Your task to perform on an android device: open app "Cash App" (install if not already installed) and enter user name: "submodules@gmail.com" and password: "heavenly" Image 0: 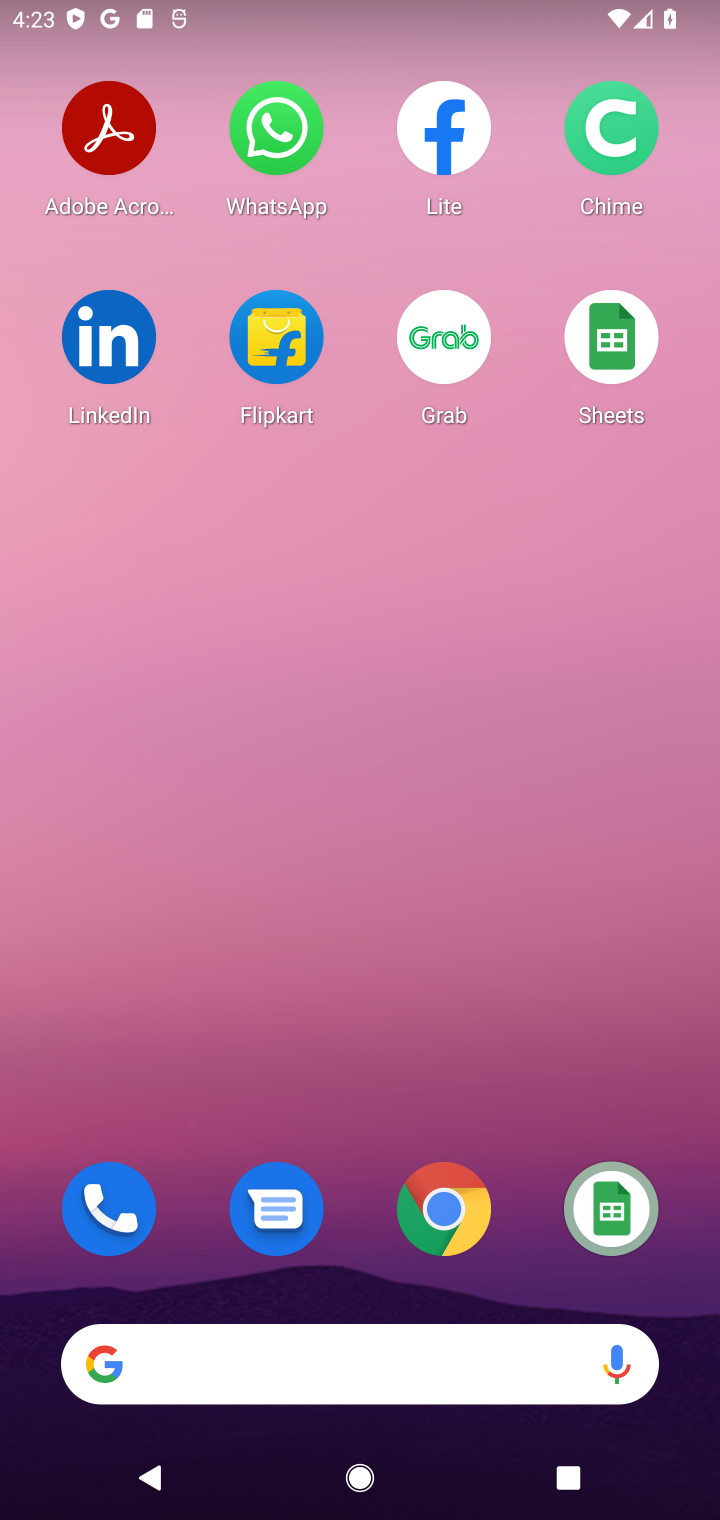
Step 0: drag from (364, 1302) to (412, 95)
Your task to perform on an android device: open app "Cash App" (install if not already installed) and enter user name: "submodules@gmail.com" and password: "heavenly" Image 1: 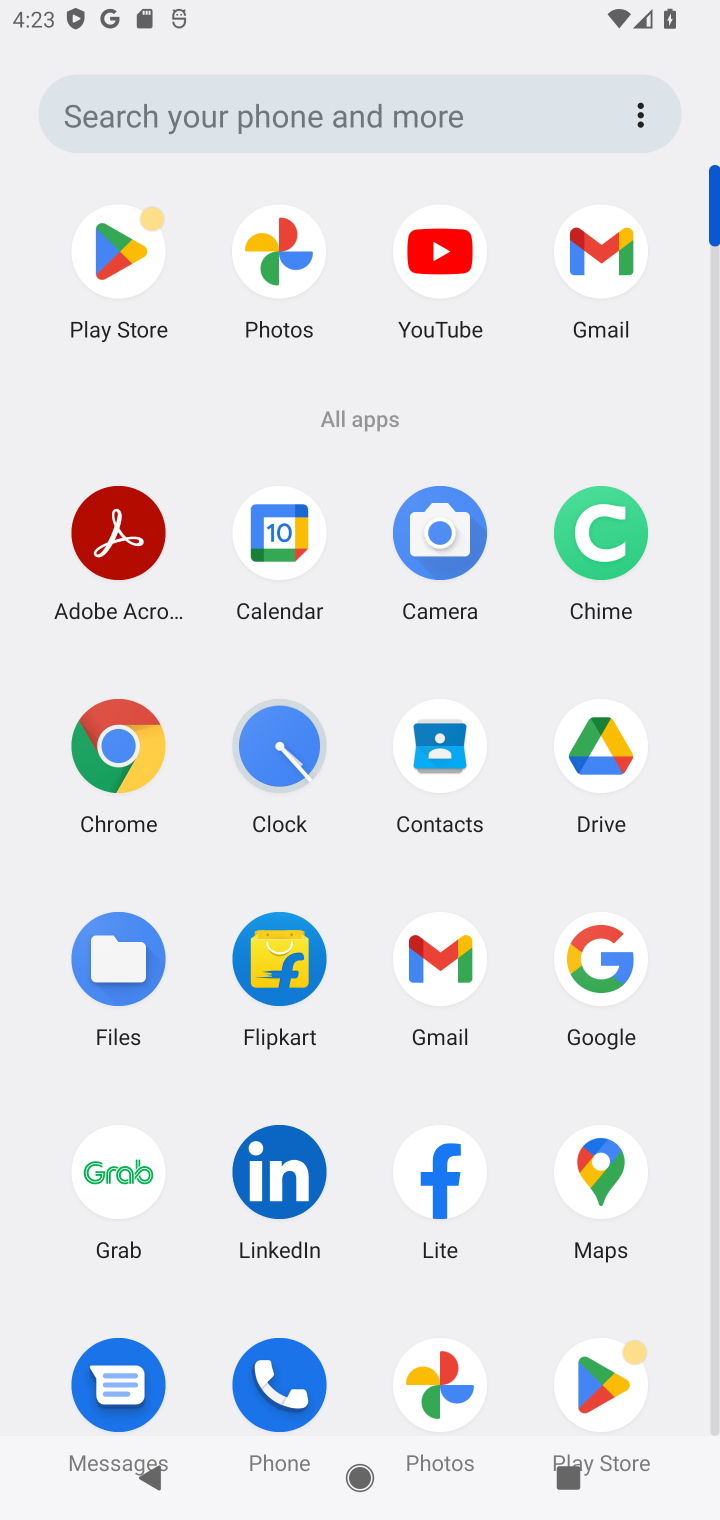
Step 1: click (101, 266)
Your task to perform on an android device: open app "Cash App" (install if not already installed) and enter user name: "submodules@gmail.com" and password: "heavenly" Image 2: 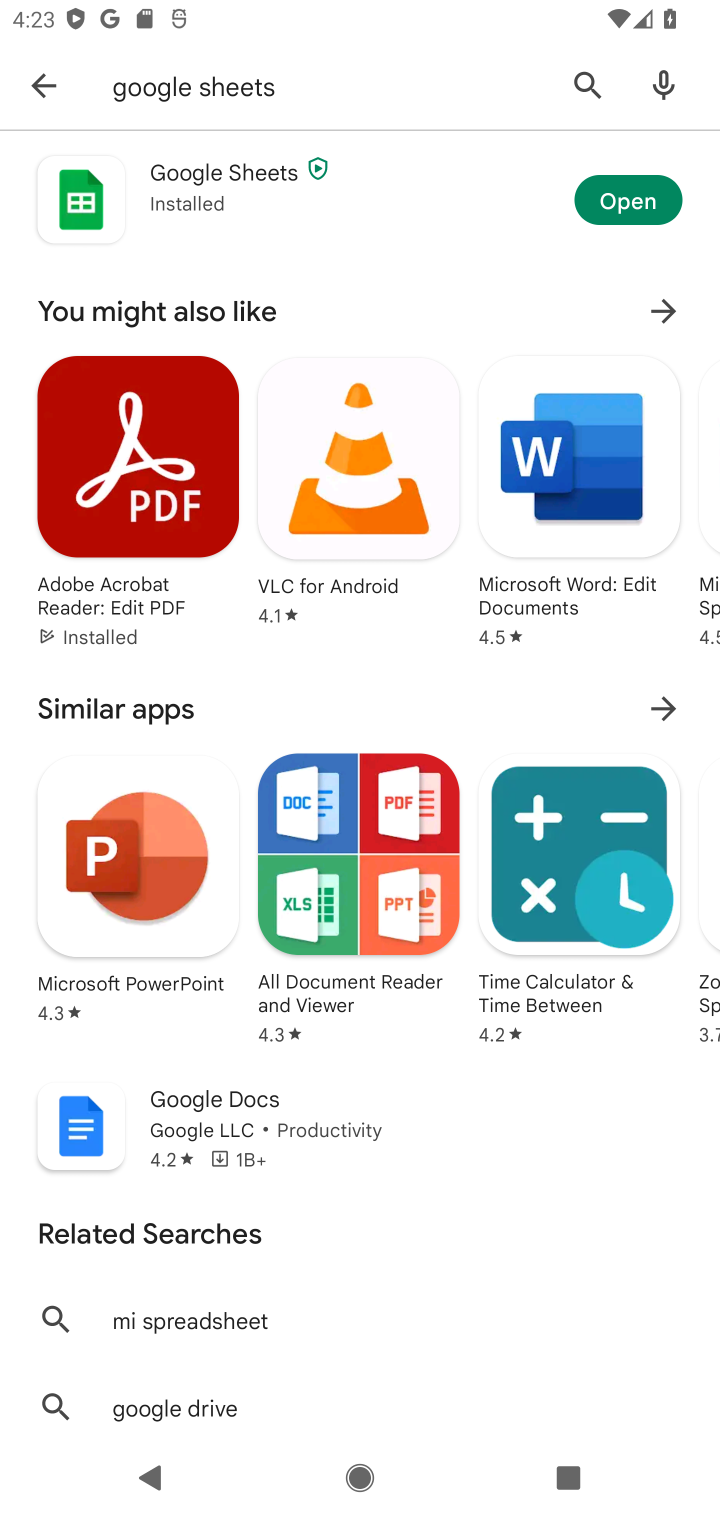
Step 2: click (565, 101)
Your task to perform on an android device: open app "Cash App" (install if not already installed) and enter user name: "submodules@gmail.com" and password: "heavenly" Image 3: 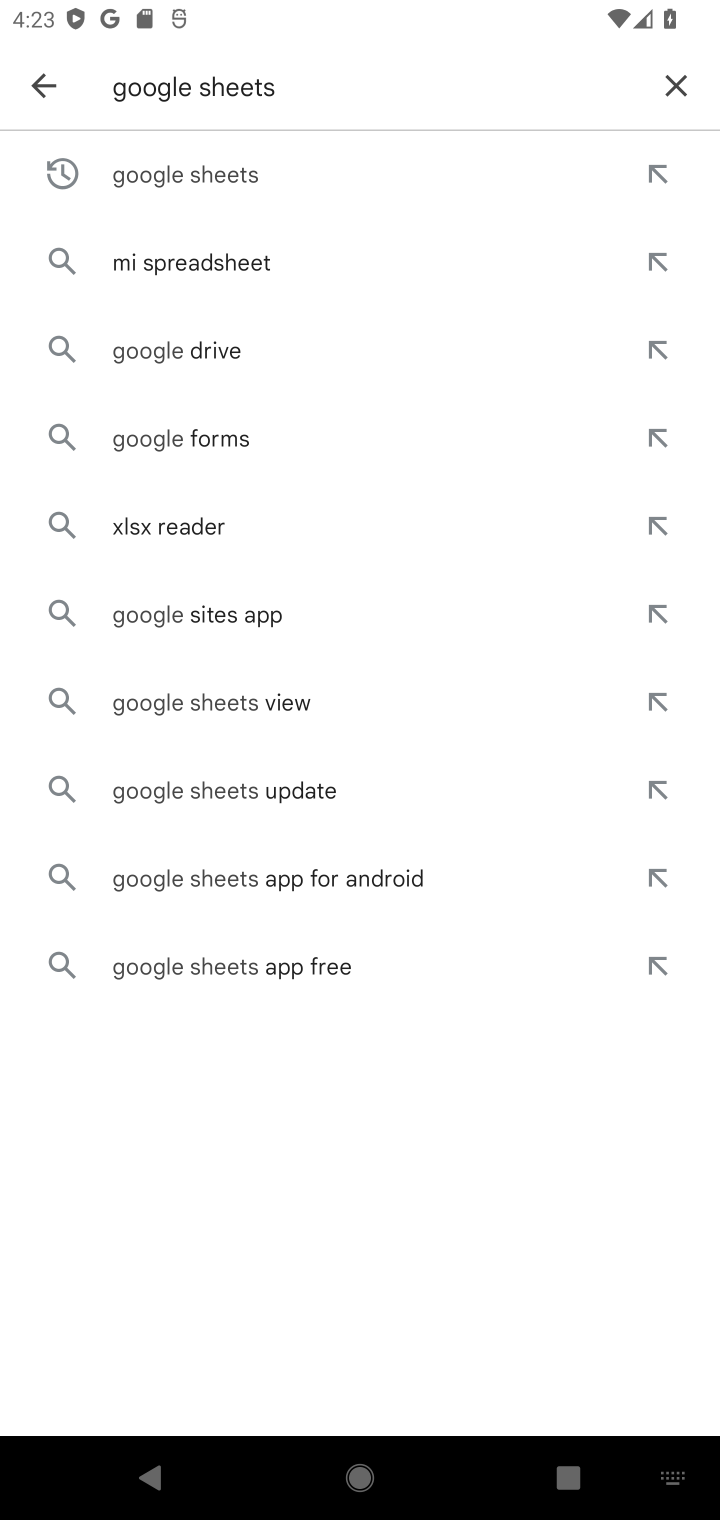
Step 3: click (673, 85)
Your task to perform on an android device: open app "Cash App" (install if not already installed) and enter user name: "submodules@gmail.com" and password: "heavenly" Image 4: 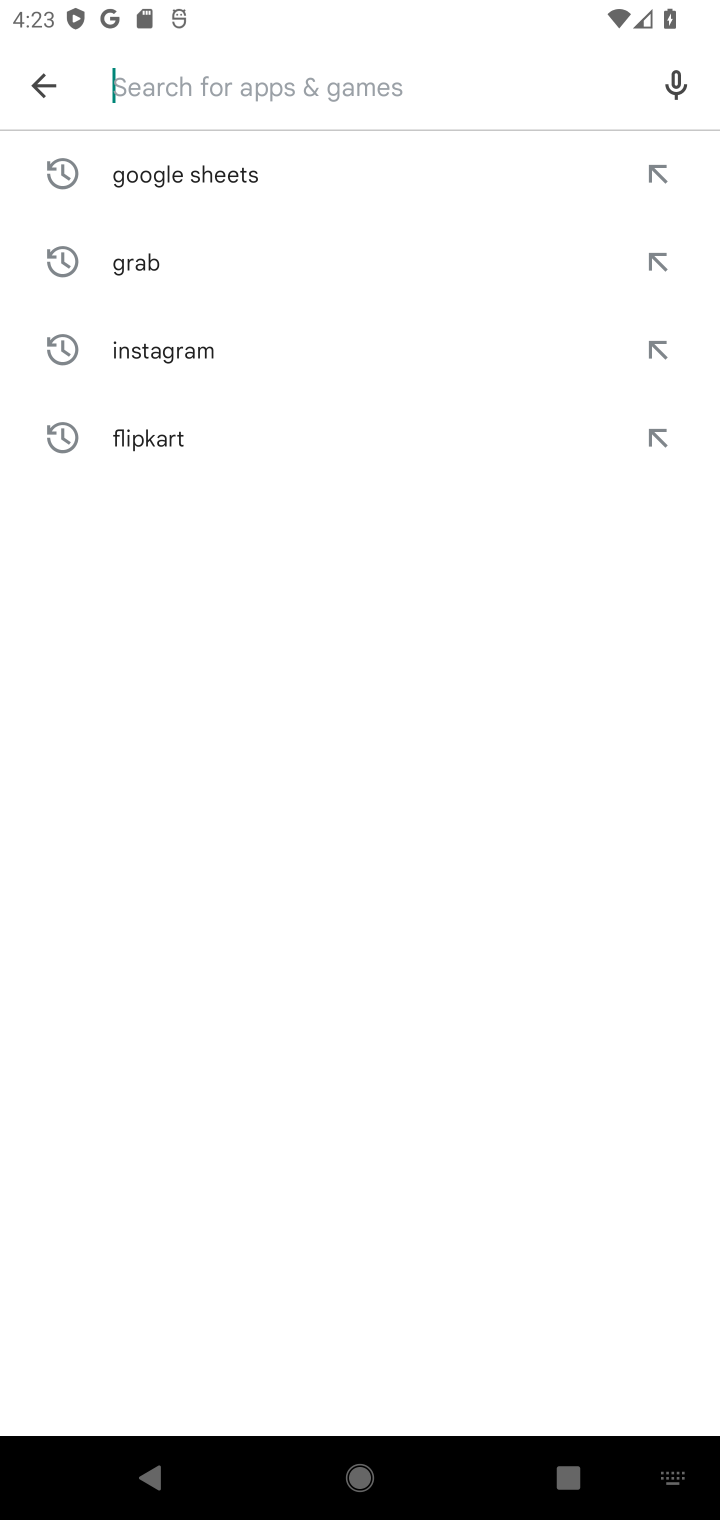
Step 4: type "cash app"
Your task to perform on an android device: open app "Cash App" (install if not already installed) and enter user name: "submodules@gmail.com" and password: "heavenly" Image 5: 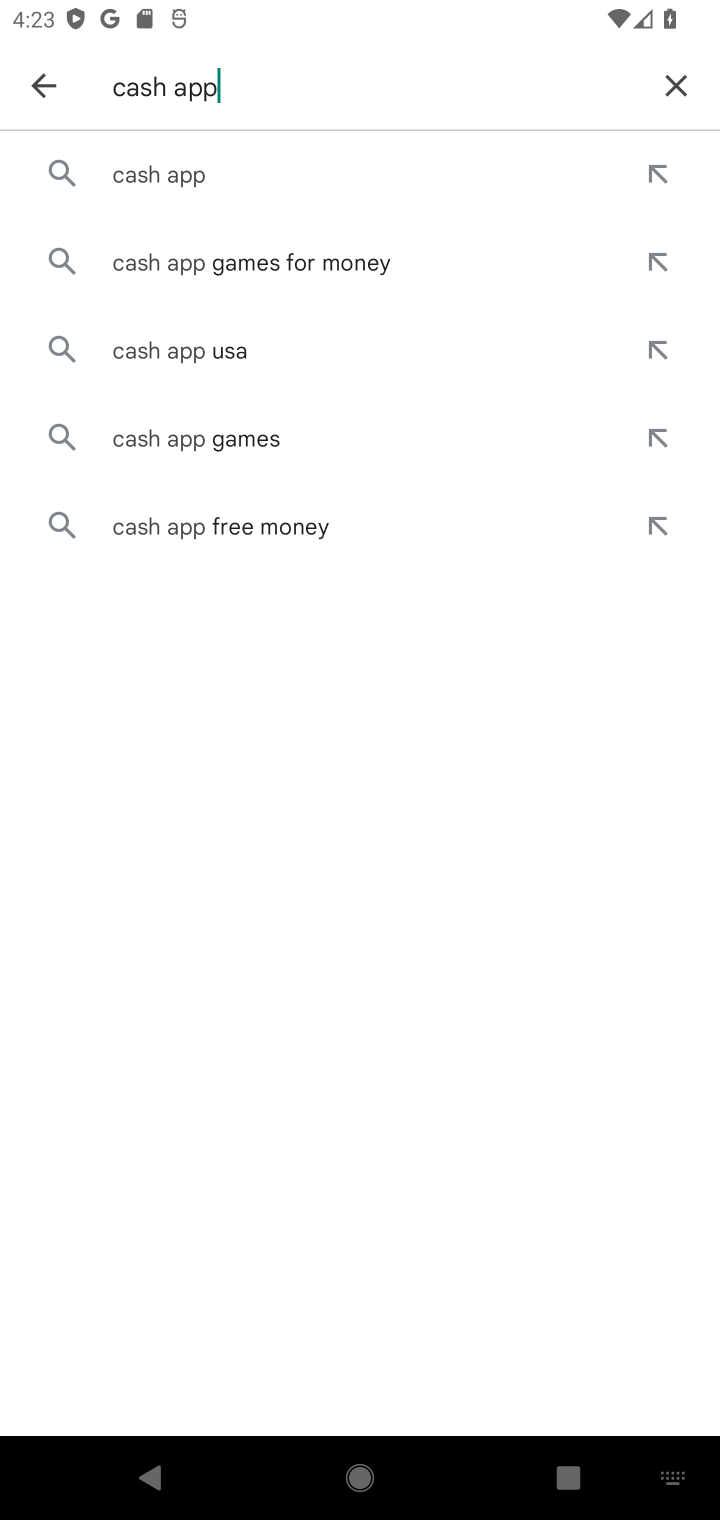
Step 5: click (225, 176)
Your task to perform on an android device: open app "Cash App" (install if not already installed) and enter user name: "submodules@gmail.com" and password: "heavenly" Image 6: 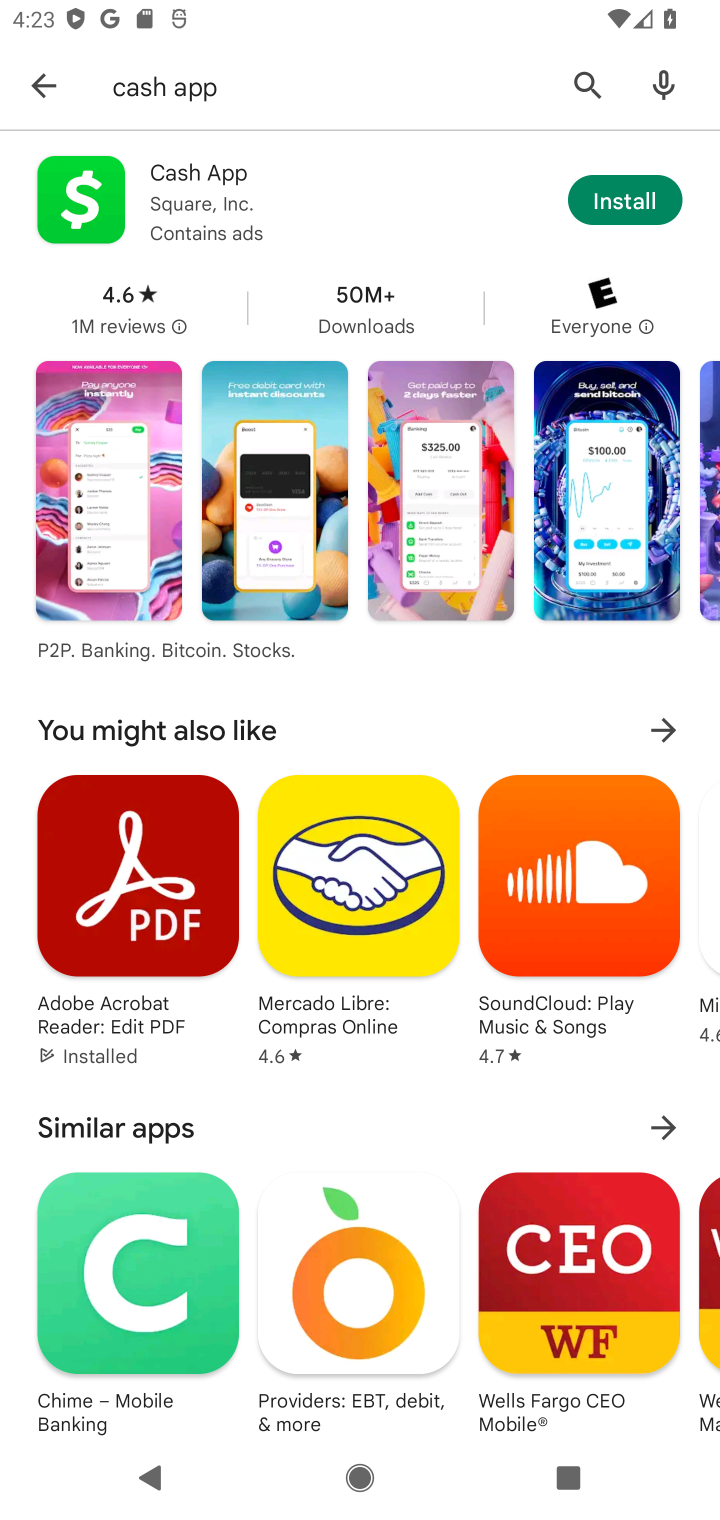
Step 6: click (650, 213)
Your task to perform on an android device: open app "Cash App" (install if not already installed) and enter user name: "submodules@gmail.com" and password: "heavenly" Image 7: 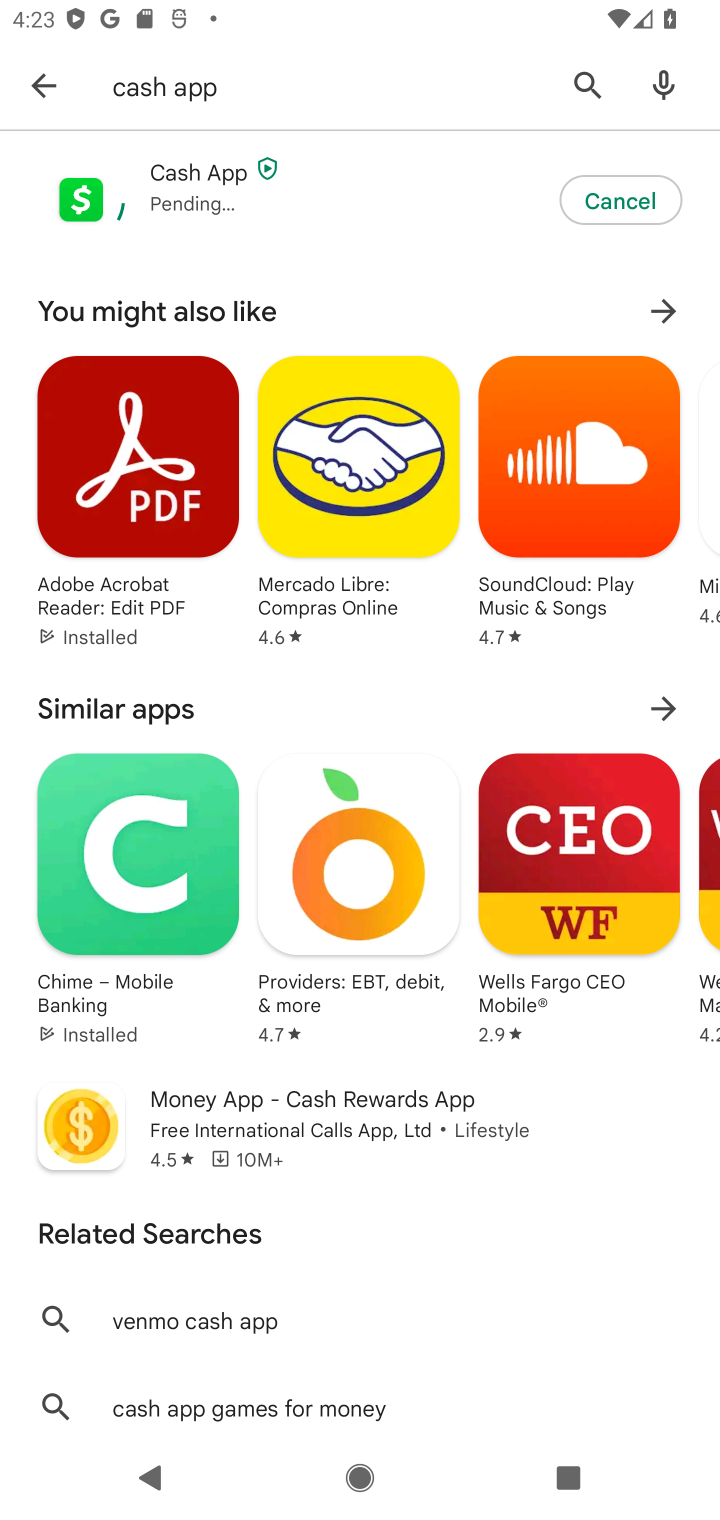
Step 7: task complete